Your task to perform on an android device: open app "Adobe Acrobat Reader" (install if not already installed) Image 0: 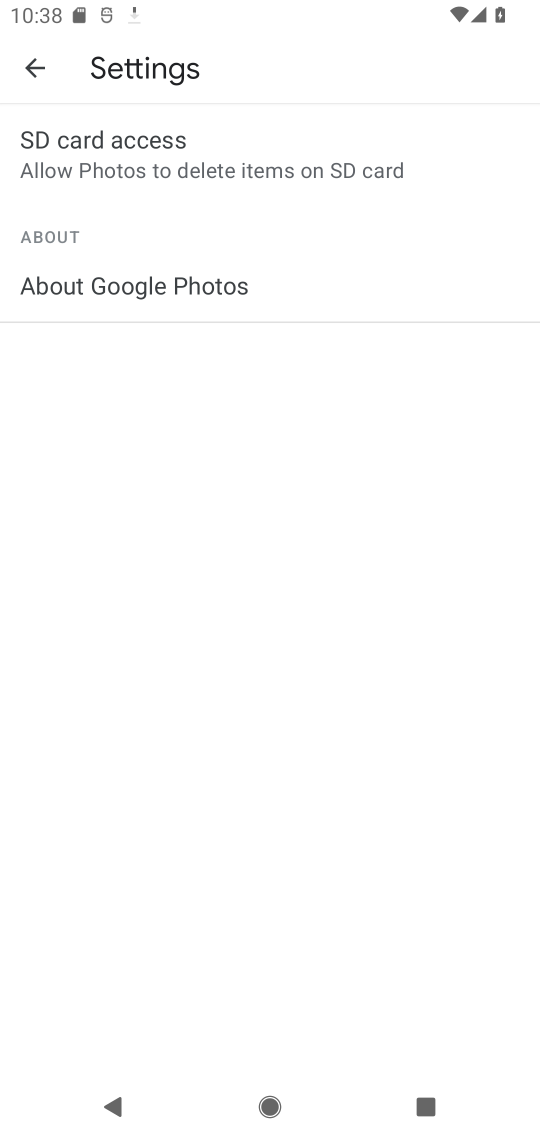
Step 0: press home button
Your task to perform on an android device: open app "Adobe Acrobat Reader" (install if not already installed) Image 1: 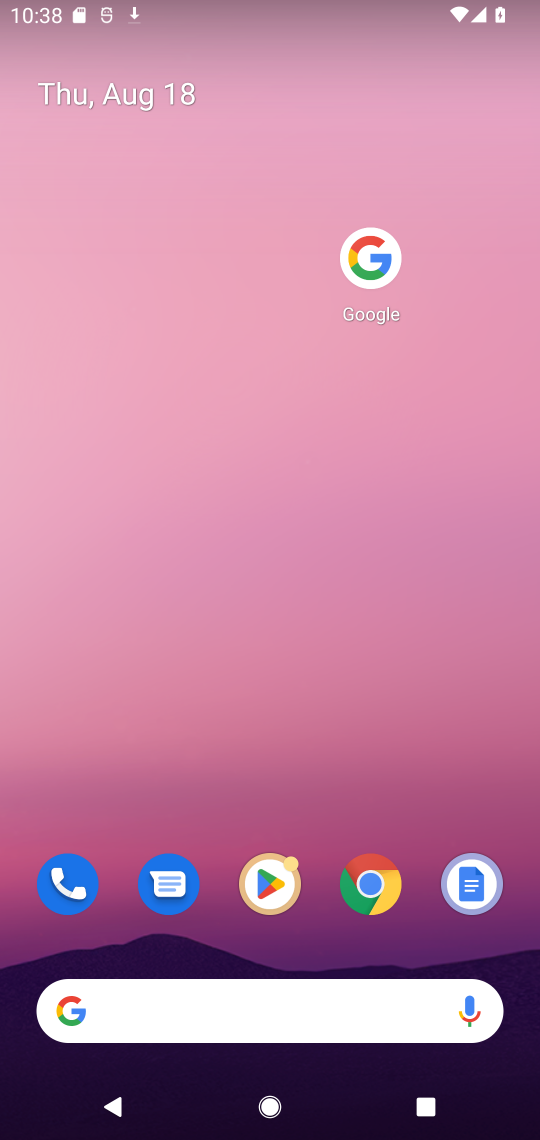
Step 1: click (274, 895)
Your task to perform on an android device: open app "Adobe Acrobat Reader" (install if not already installed) Image 2: 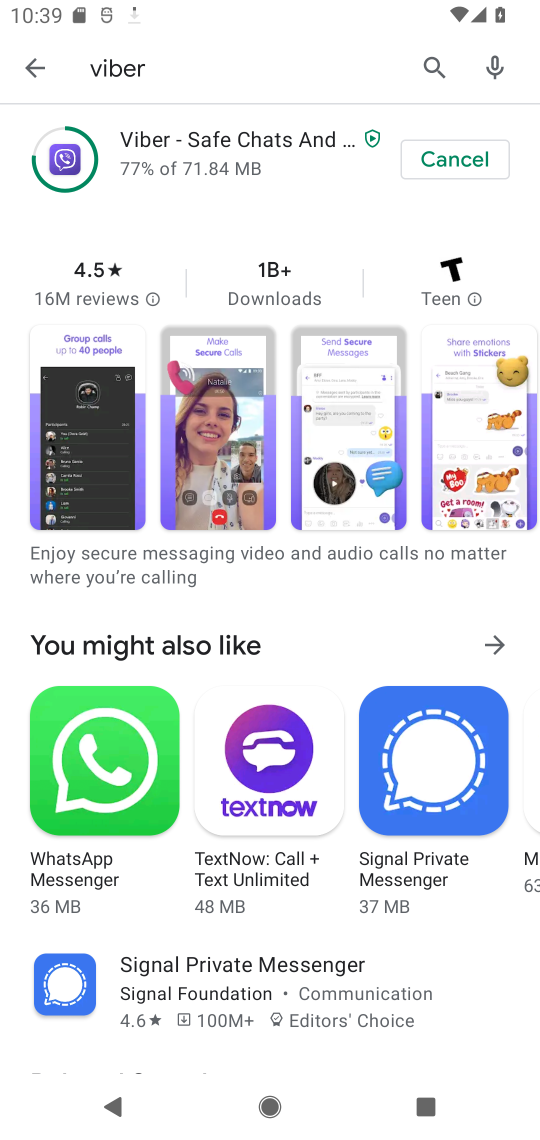
Step 2: click (428, 62)
Your task to perform on an android device: open app "Adobe Acrobat Reader" (install if not already installed) Image 3: 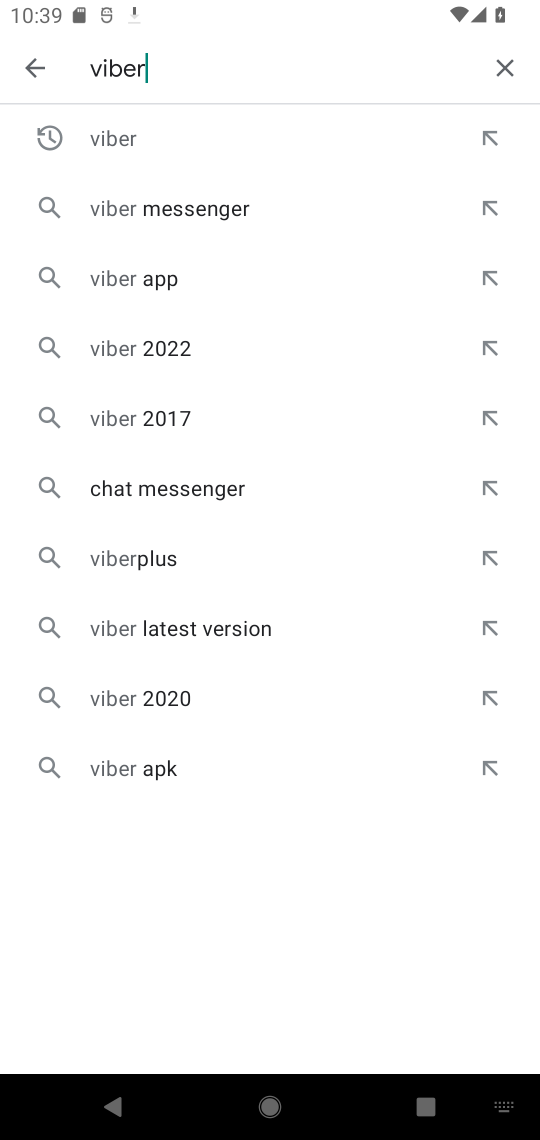
Step 3: click (486, 63)
Your task to perform on an android device: open app "Adobe Acrobat Reader" (install if not already installed) Image 4: 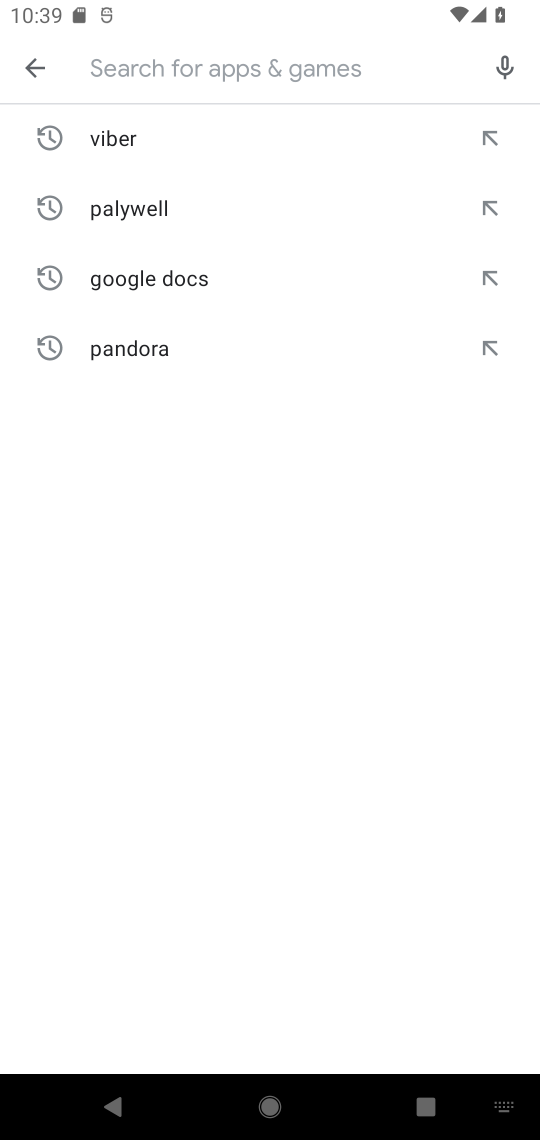
Step 4: type "adobe"
Your task to perform on an android device: open app "Adobe Acrobat Reader" (install if not already installed) Image 5: 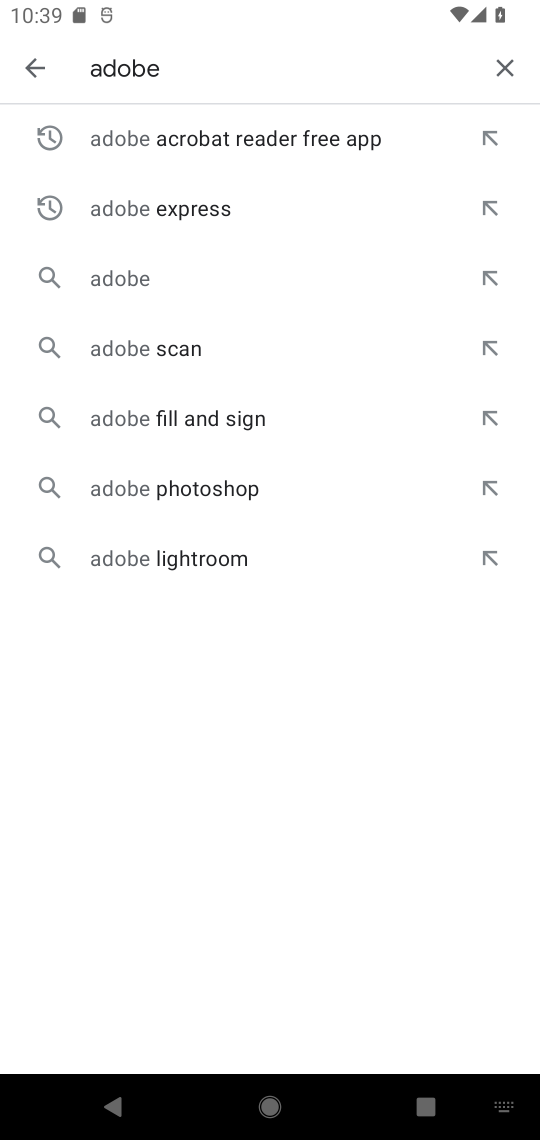
Step 5: click (205, 121)
Your task to perform on an android device: open app "Adobe Acrobat Reader" (install if not already installed) Image 6: 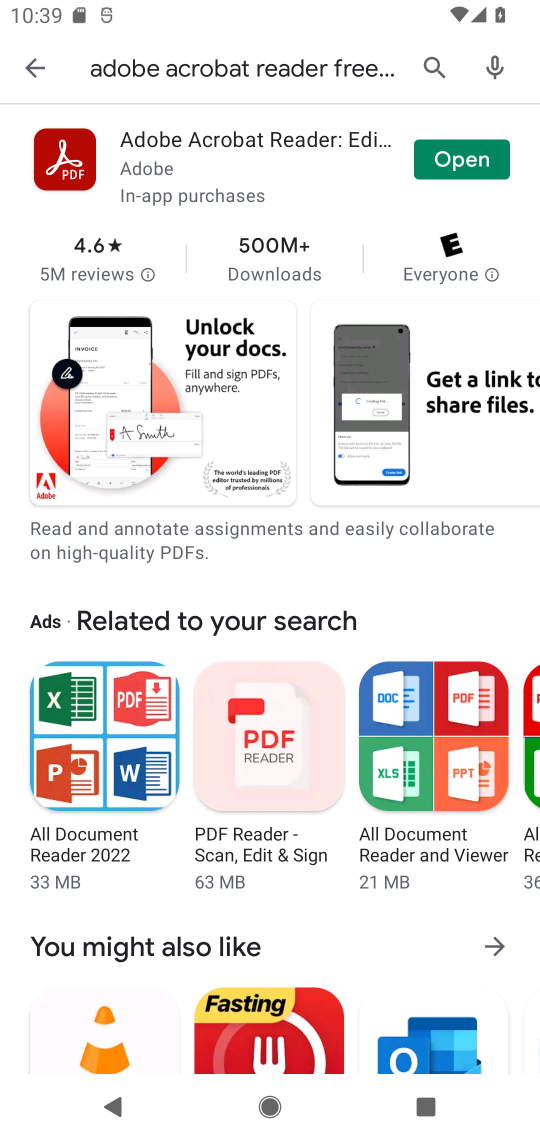
Step 6: click (509, 156)
Your task to perform on an android device: open app "Adobe Acrobat Reader" (install if not already installed) Image 7: 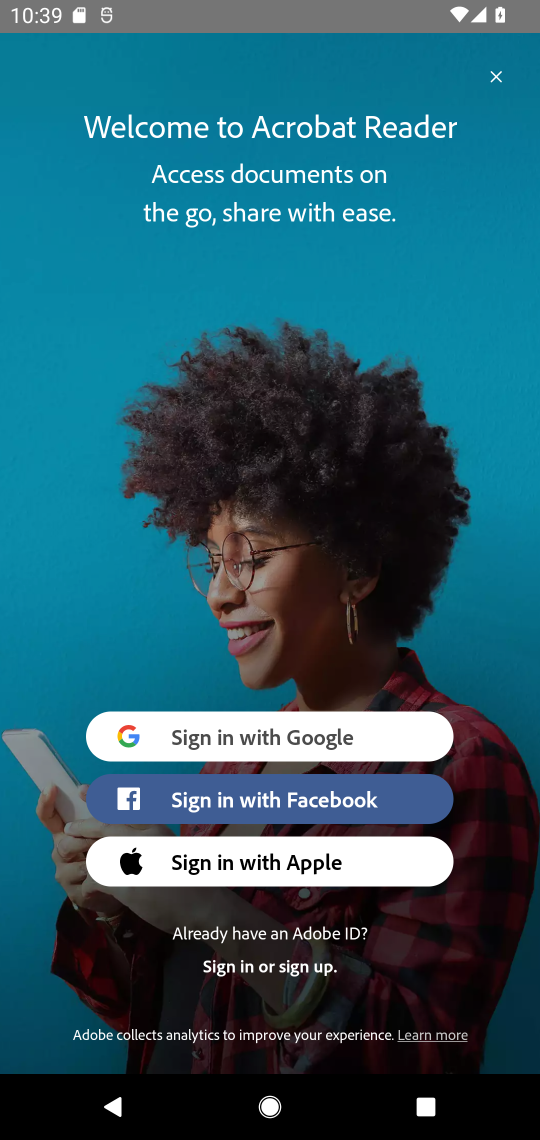
Step 7: task complete